Your task to perform on an android device: Open the Play Movies app and select the watchlist tab. Image 0: 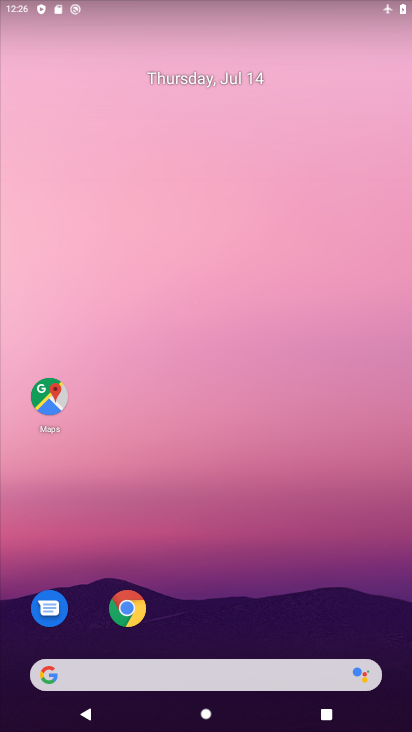
Step 0: drag from (345, 598) to (346, 118)
Your task to perform on an android device: Open the Play Movies app and select the watchlist tab. Image 1: 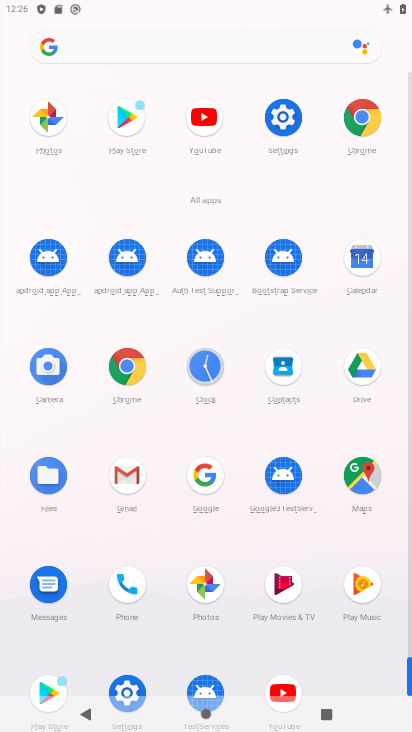
Step 1: click (281, 592)
Your task to perform on an android device: Open the Play Movies app and select the watchlist tab. Image 2: 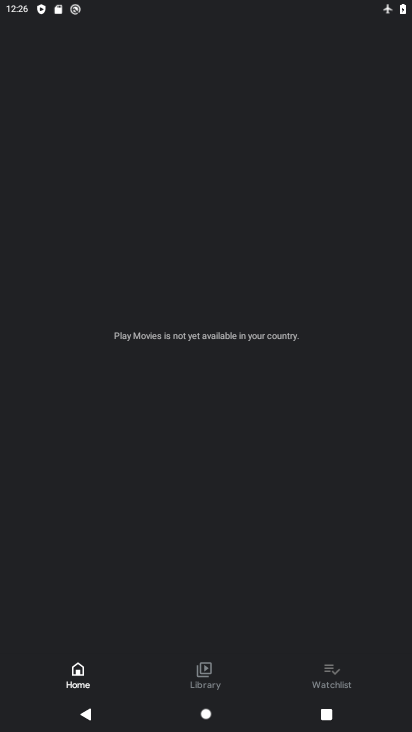
Step 2: click (330, 677)
Your task to perform on an android device: Open the Play Movies app and select the watchlist tab. Image 3: 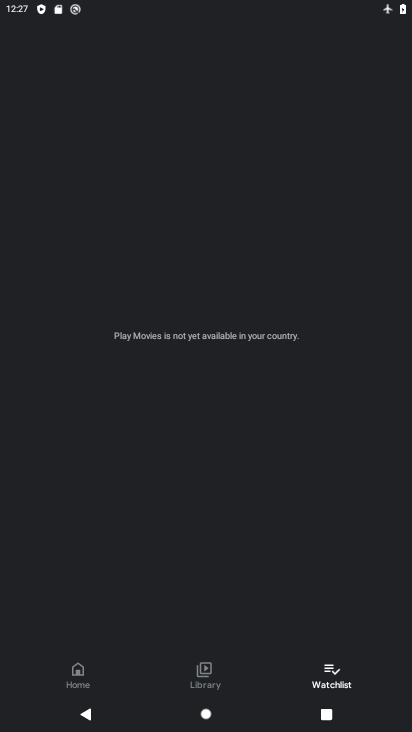
Step 3: task complete